Your task to perform on an android device: Empty the shopping cart on costco.com. Add razer huntsman to the cart on costco.com Image 0: 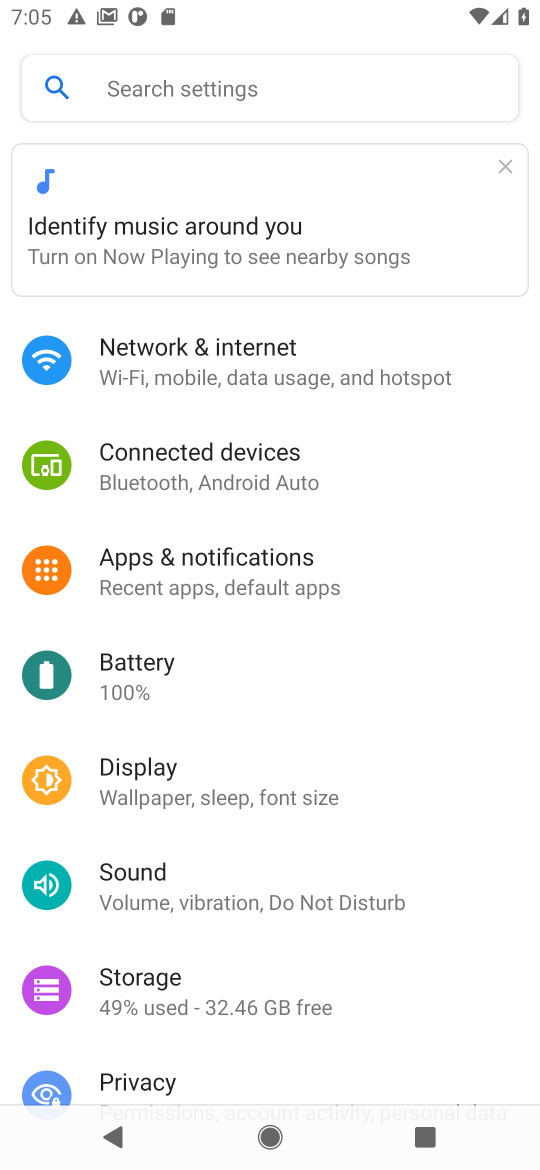
Step 0: press home button
Your task to perform on an android device: Empty the shopping cart on costco.com. Add razer huntsman to the cart on costco.com Image 1: 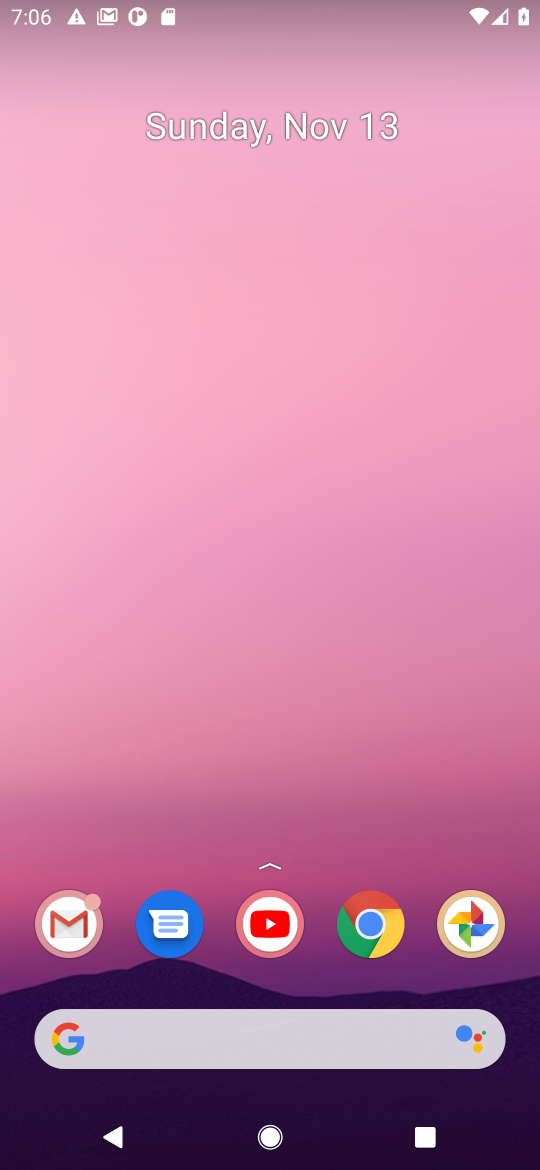
Step 1: click (373, 934)
Your task to perform on an android device: Empty the shopping cart on costco.com. Add razer huntsman to the cart on costco.com Image 2: 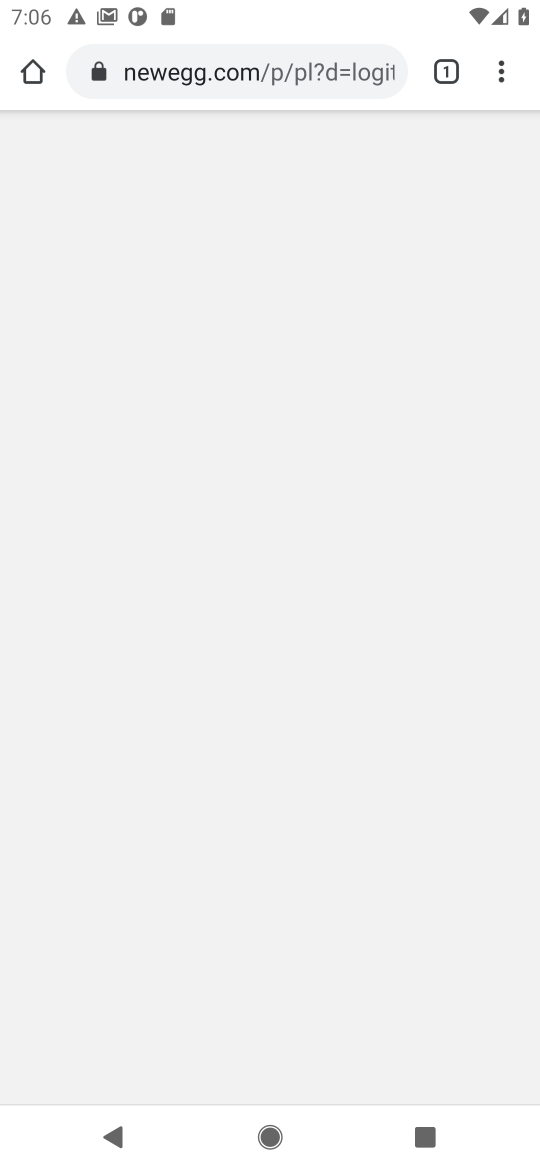
Step 2: click (247, 71)
Your task to perform on an android device: Empty the shopping cart on costco.com. Add razer huntsman to the cart on costco.com Image 3: 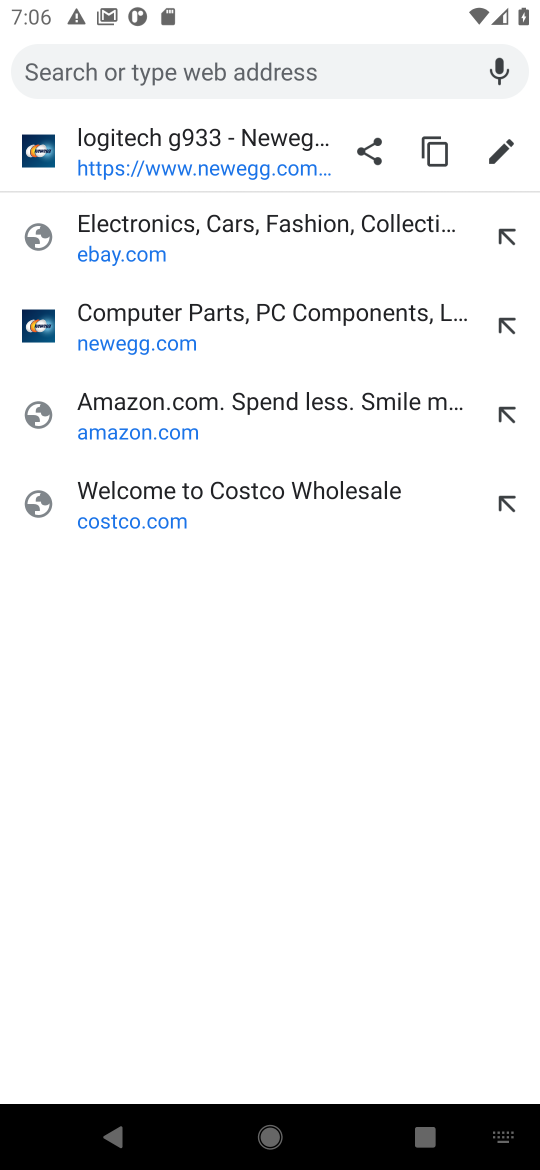
Step 3: click (118, 509)
Your task to perform on an android device: Empty the shopping cart on costco.com. Add razer huntsman to the cart on costco.com Image 4: 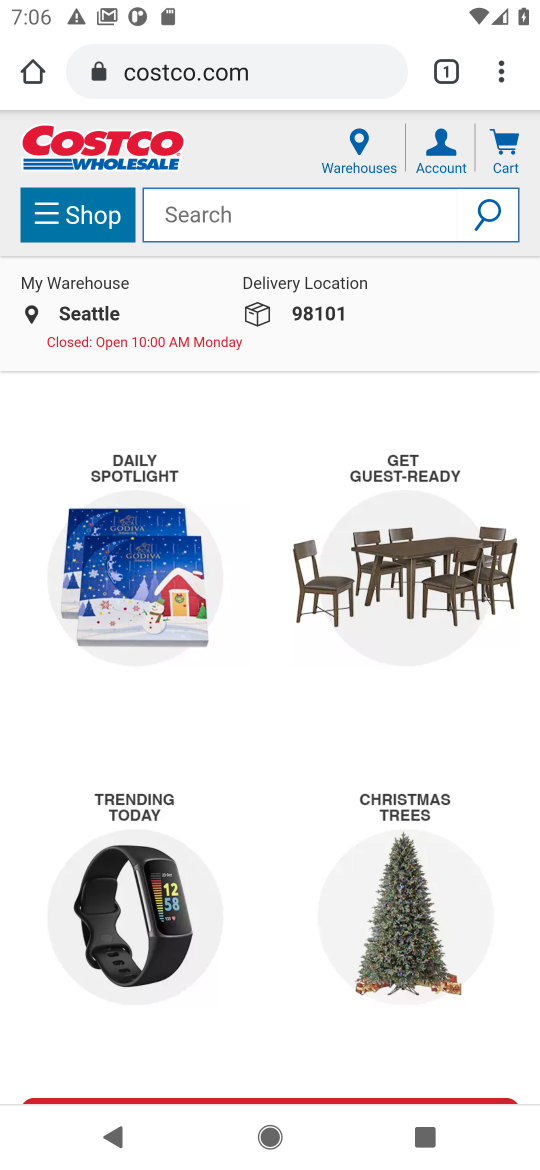
Step 4: click (506, 154)
Your task to perform on an android device: Empty the shopping cart on costco.com. Add razer huntsman to the cart on costco.com Image 5: 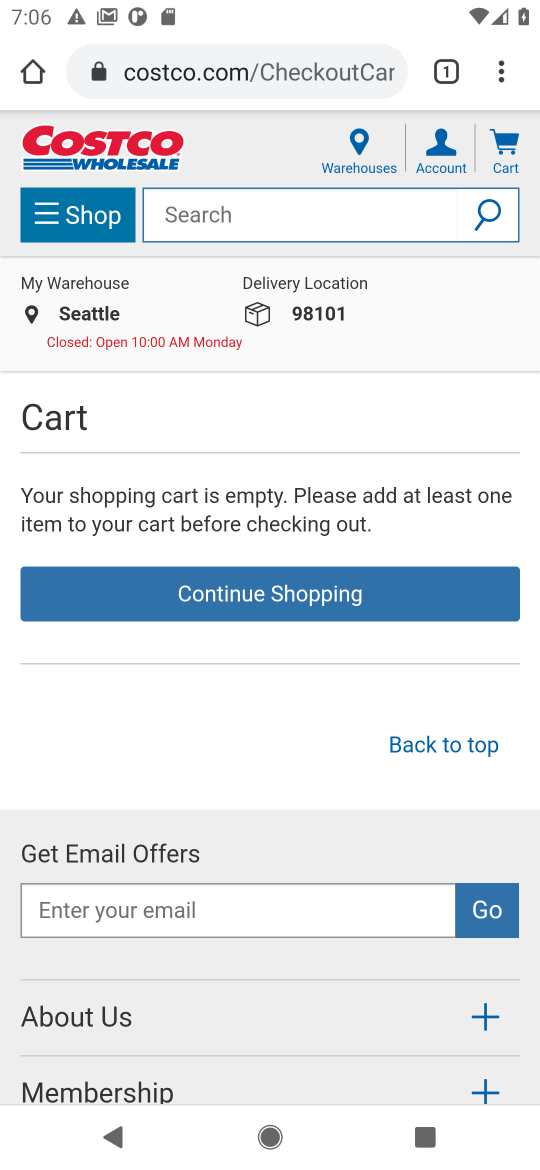
Step 5: click (196, 222)
Your task to perform on an android device: Empty the shopping cart on costco.com. Add razer huntsman to the cart on costco.com Image 6: 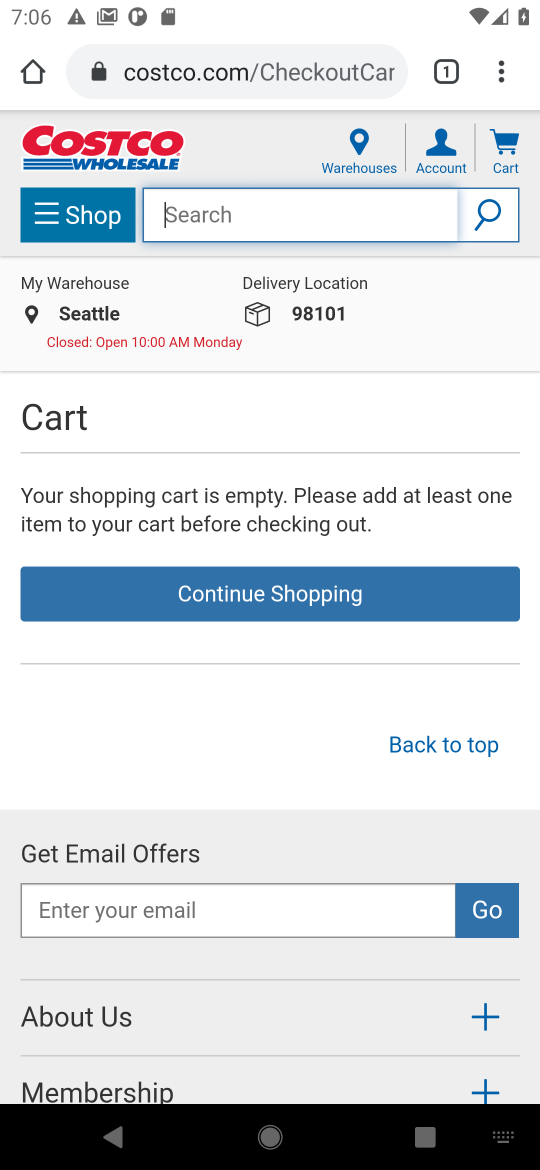
Step 6: type "razer huntsman"
Your task to perform on an android device: Empty the shopping cart on costco.com. Add razer huntsman to the cart on costco.com Image 7: 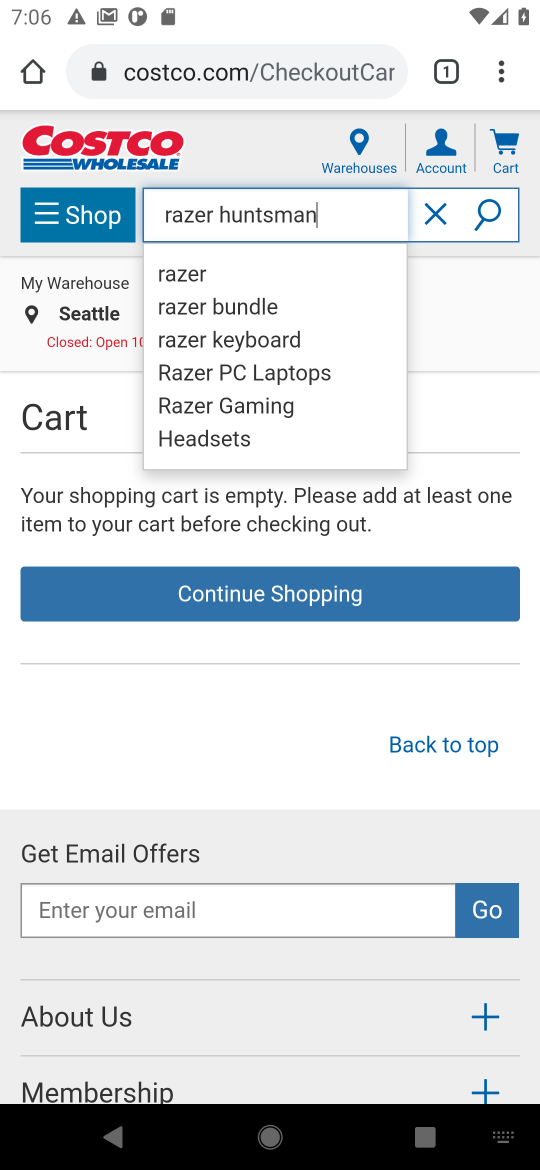
Step 7: click (479, 209)
Your task to perform on an android device: Empty the shopping cart on costco.com. Add razer huntsman to the cart on costco.com Image 8: 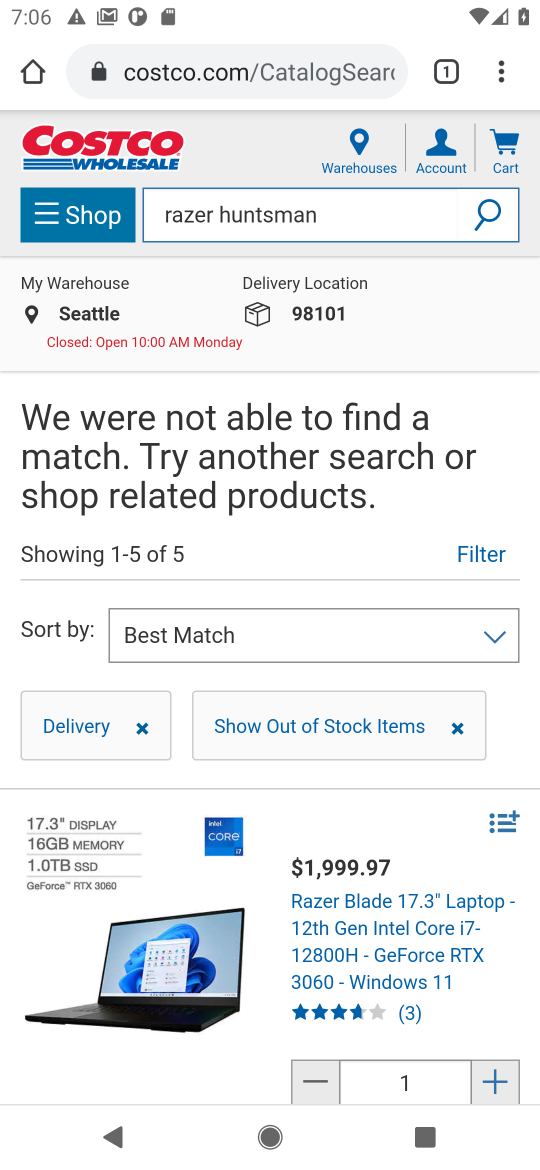
Step 8: task complete